Your task to perform on an android device: empty trash in the gmail app Image 0: 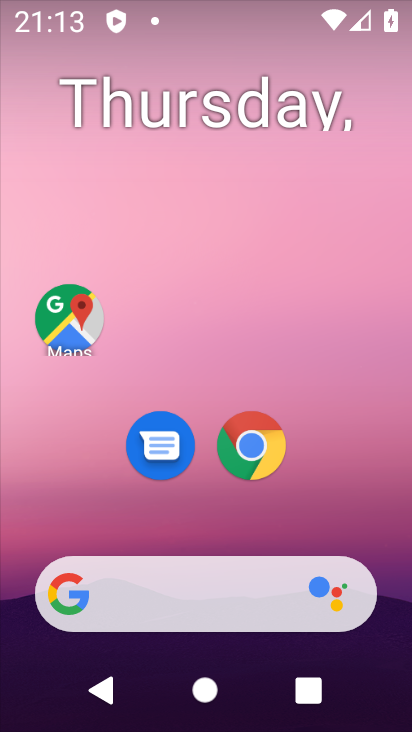
Step 0: press home button
Your task to perform on an android device: empty trash in the gmail app Image 1: 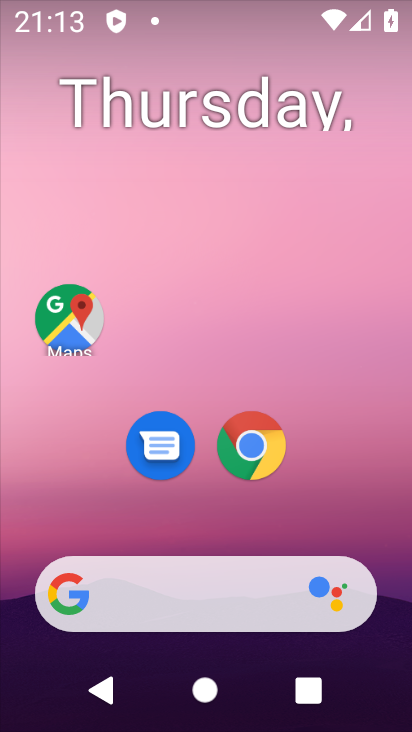
Step 1: drag from (17, 623) to (275, 103)
Your task to perform on an android device: empty trash in the gmail app Image 2: 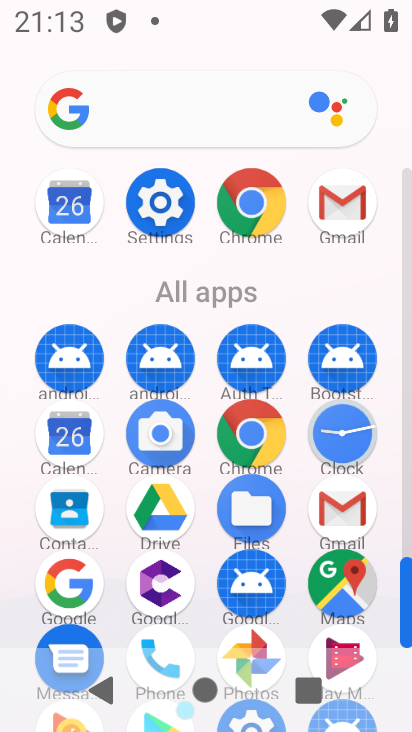
Step 2: click (332, 194)
Your task to perform on an android device: empty trash in the gmail app Image 3: 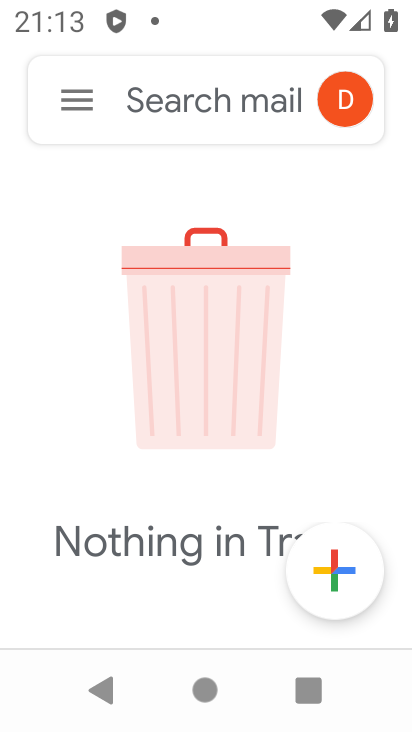
Step 3: click (84, 96)
Your task to perform on an android device: empty trash in the gmail app Image 4: 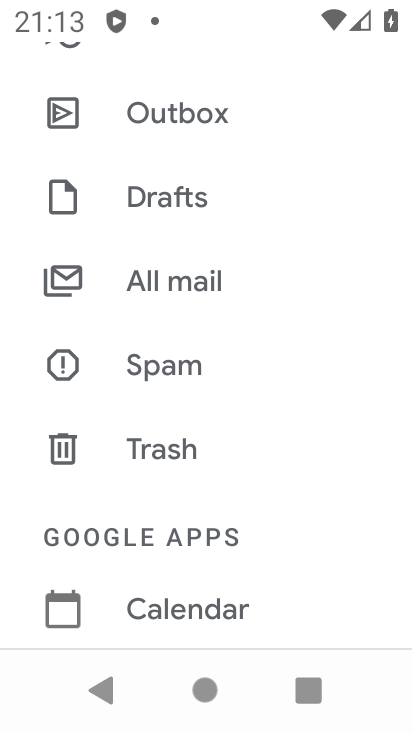
Step 4: click (145, 440)
Your task to perform on an android device: empty trash in the gmail app Image 5: 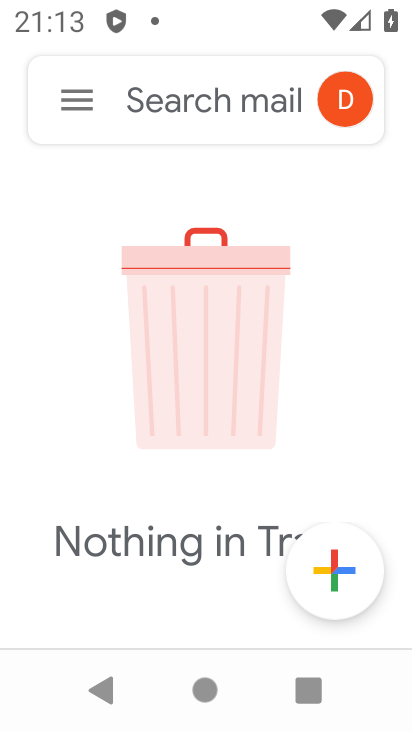
Step 5: task complete